Your task to perform on an android device: Show me popular videos on Youtube Image 0: 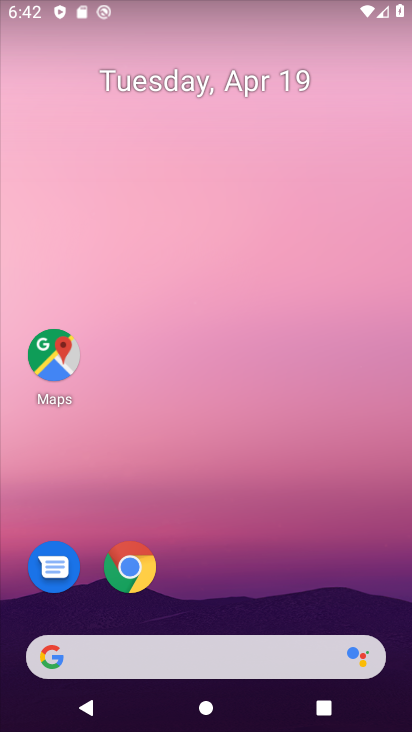
Step 0: drag from (216, 568) to (176, 192)
Your task to perform on an android device: Show me popular videos on Youtube Image 1: 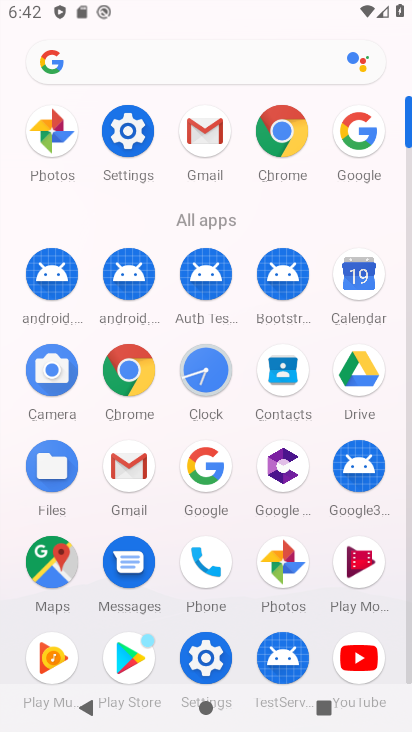
Step 1: click (357, 659)
Your task to perform on an android device: Show me popular videos on Youtube Image 2: 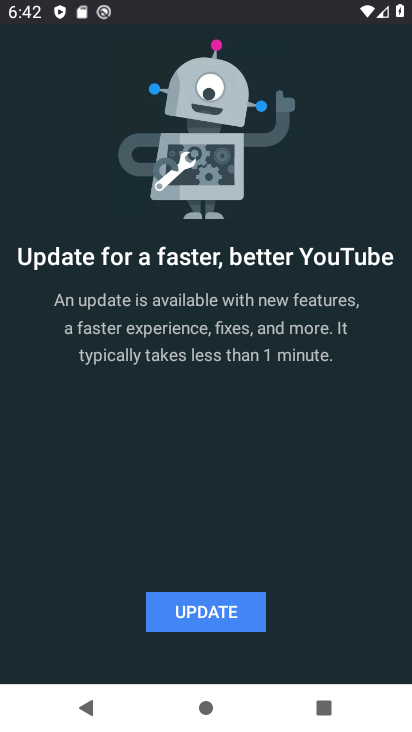
Step 2: click (235, 602)
Your task to perform on an android device: Show me popular videos on Youtube Image 3: 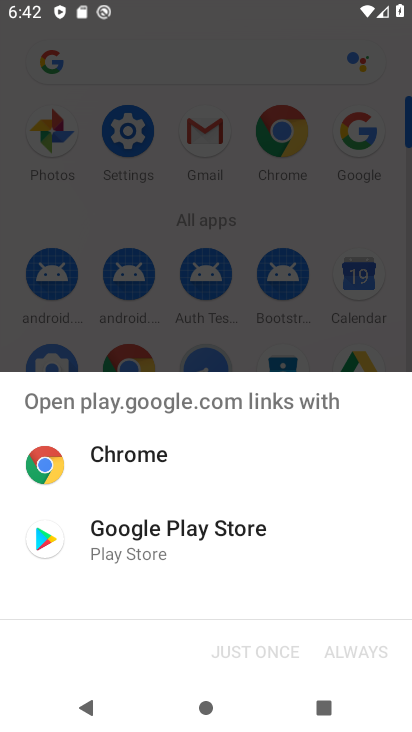
Step 3: click (206, 559)
Your task to perform on an android device: Show me popular videos on Youtube Image 4: 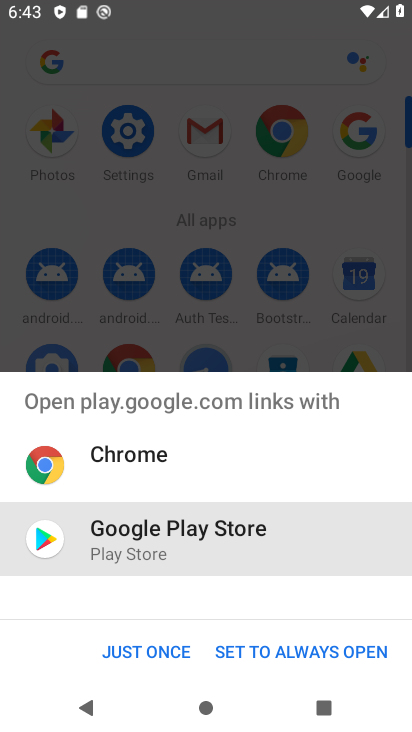
Step 4: click (161, 528)
Your task to perform on an android device: Show me popular videos on Youtube Image 5: 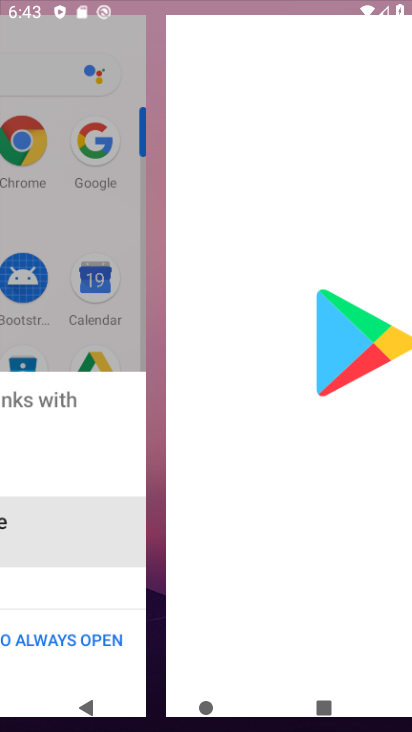
Step 5: click (144, 641)
Your task to perform on an android device: Show me popular videos on Youtube Image 6: 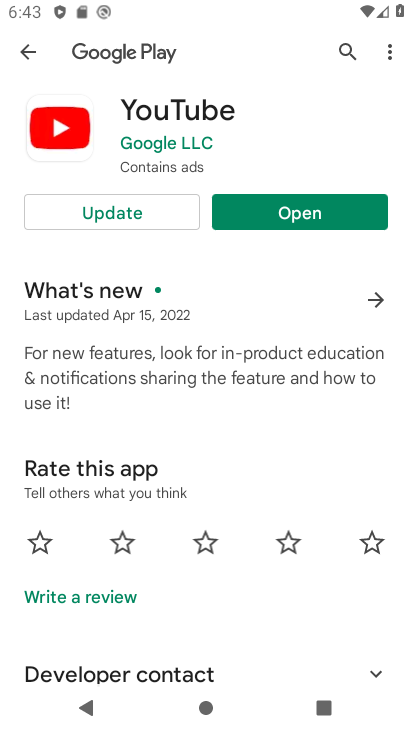
Step 6: click (121, 214)
Your task to perform on an android device: Show me popular videos on Youtube Image 7: 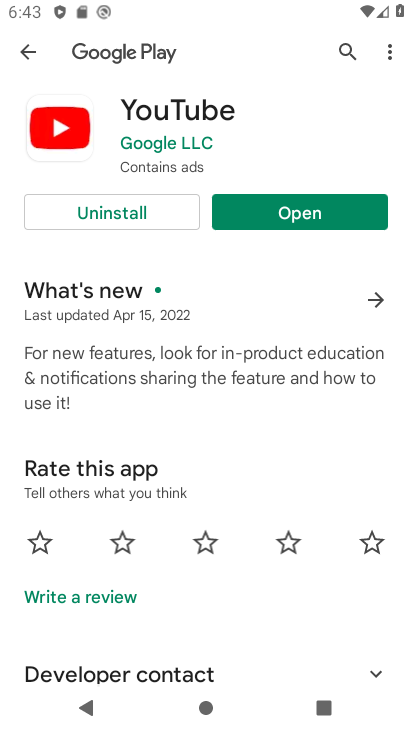
Step 7: click (335, 206)
Your task to perform on an android device: Show me popular videos on Youtube Image 8: 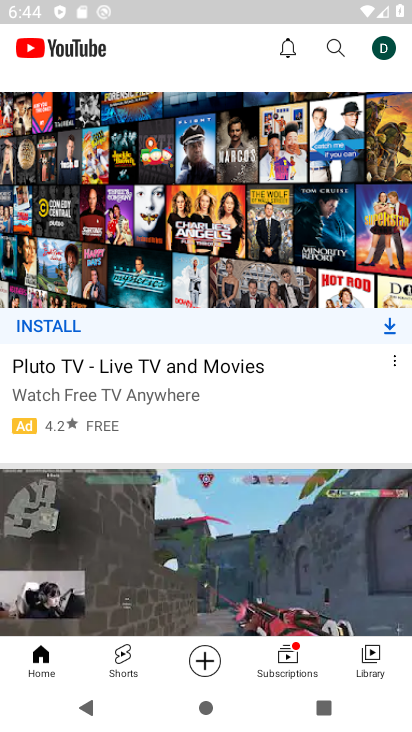
Step 8: click (324, 52)
Your task to perform on an android device: Show me popular videos on Youtube Image 9: 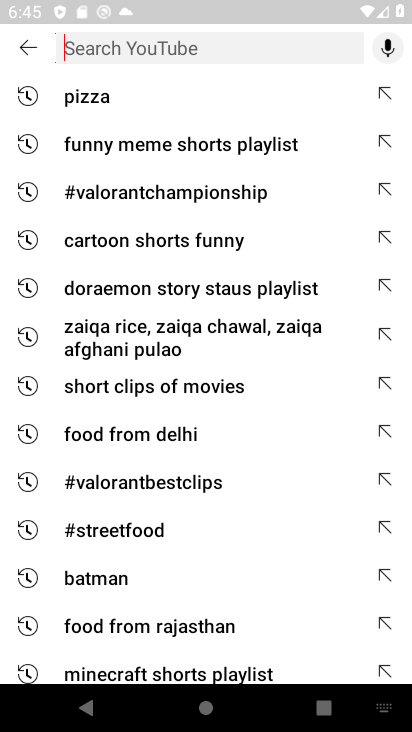
Step 9: type "popular videos "
Your task to perform on an android device: Show me popular videos on Youtube Image 10: 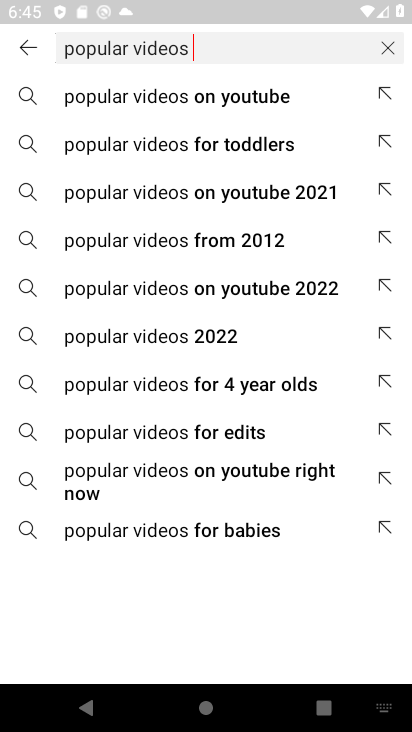
Step 10: click (230, 92)
Your task to perform on an android device: Show me popular videos on Youtube Image 11: 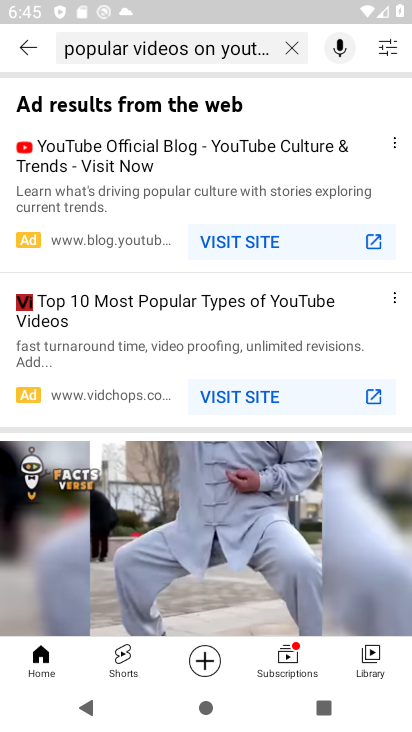
Step 11: task complete